Your task to perform on an android device: see tabs open on other devices in the chrome app Image 0: 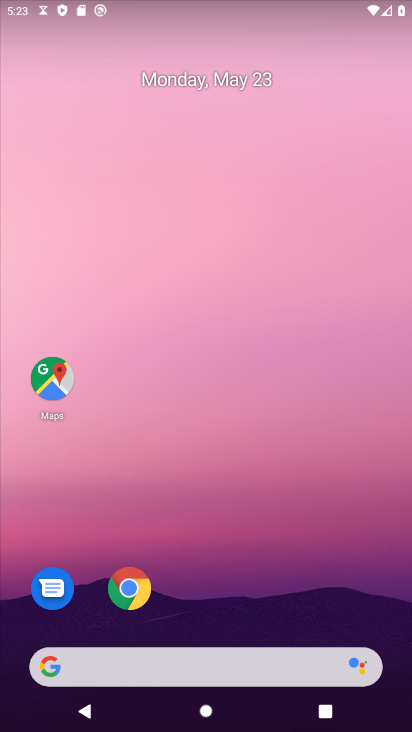
Step 0: drag from (185, 304) to (174, 3)
Your task to perform on an android device: see tabs open on other devices in the chrome app Image 1: 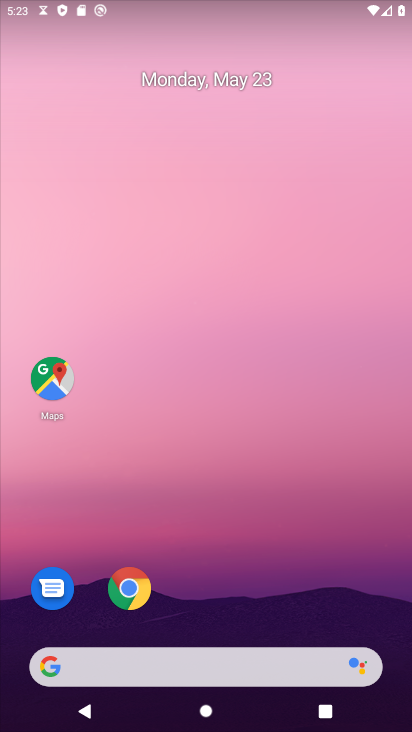
Step 1: drag from (267, 532) to (206, 0)
Your task to perform on an android device: see tabs open on other devices in the chrome app Image 2: 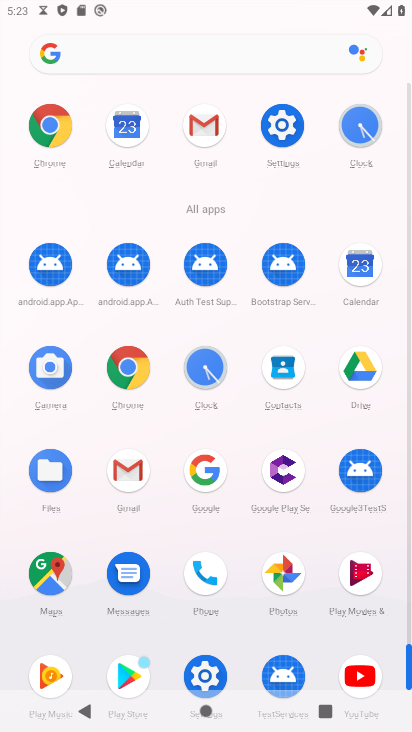
Step 2: drag from (13, 556) to (48, 173)
Your task to perform on an android device: see tabs open on other devices in the chrome app Image 3: 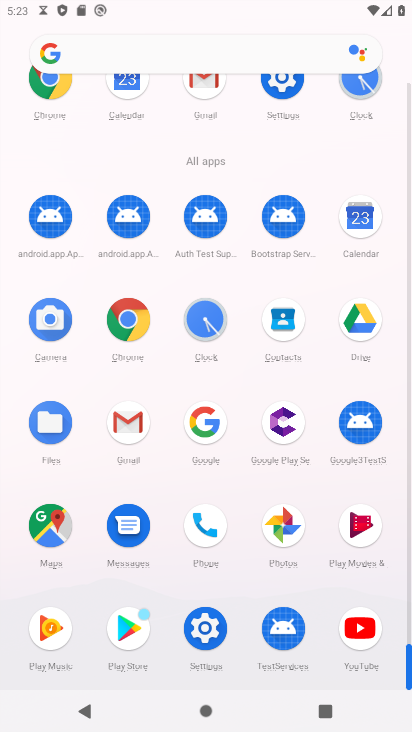
Step 3: click (128, 321)
Your task to perform on an android device: see tabs open on other devices in the chrome app Image 4: 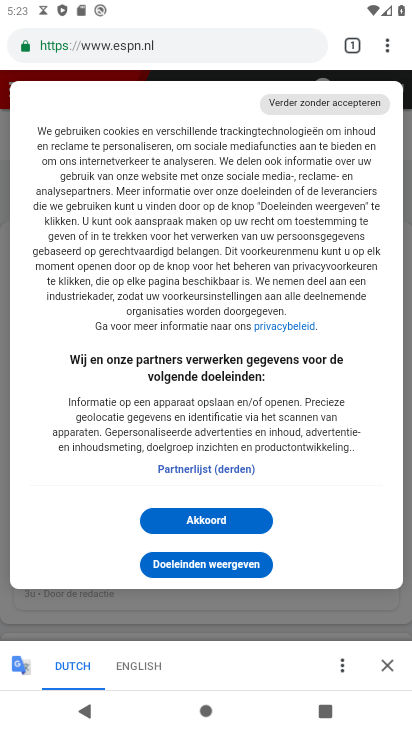
Step 4: task complete